Your task to perform on an android device: Go to ESPN.com Image 0: 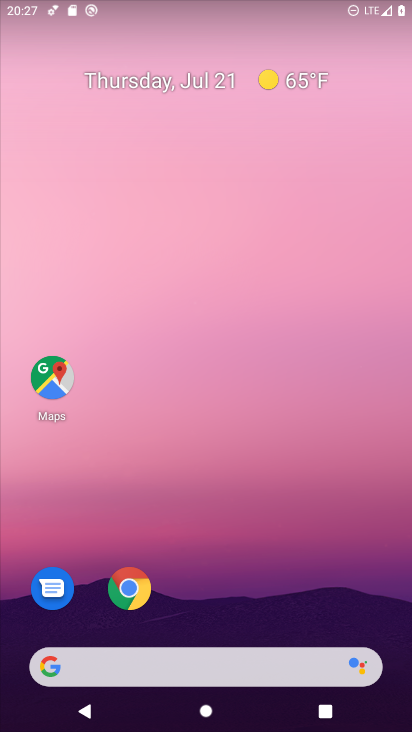
Step 0: click (149, 606)
Your task to perform on an android device: Go to ESPN.com Image 1: 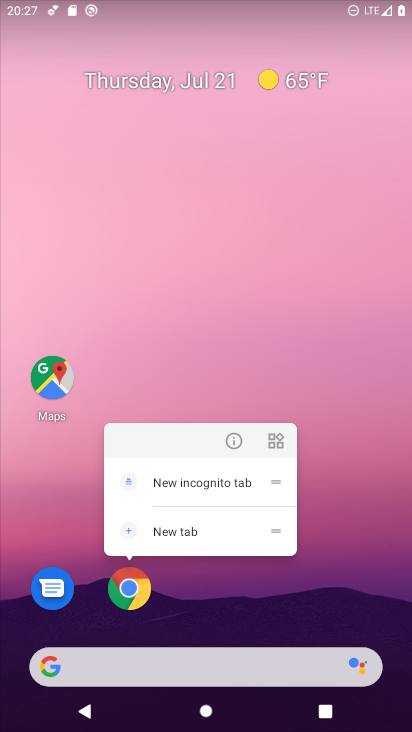
Step 1: click (302, 271)
Your task to perform on an android device: Go to ESPN.com Image 2: 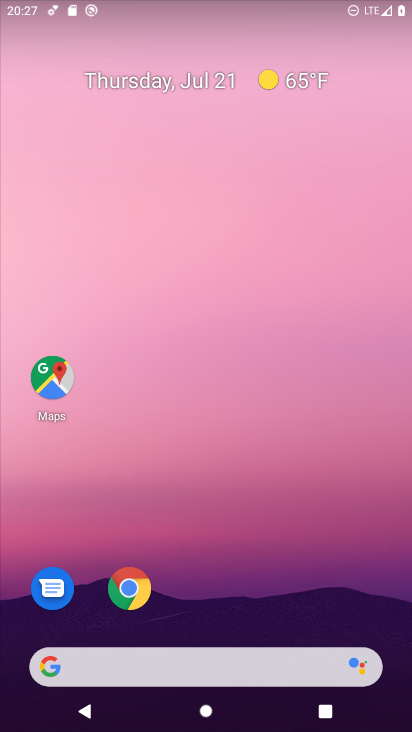
Step 2: click (146, 570)
Your task to perform on an android device: Go to ESPN.com Image 3: 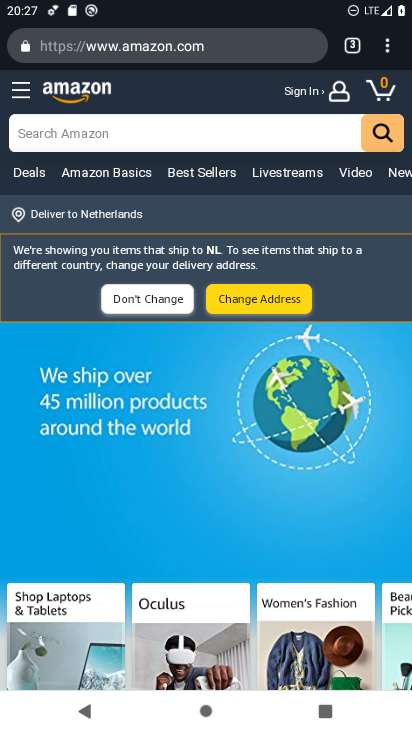
Step 3: click (358, 47)
Your task to perform on an android device: Go to ESPN.com Image 4: 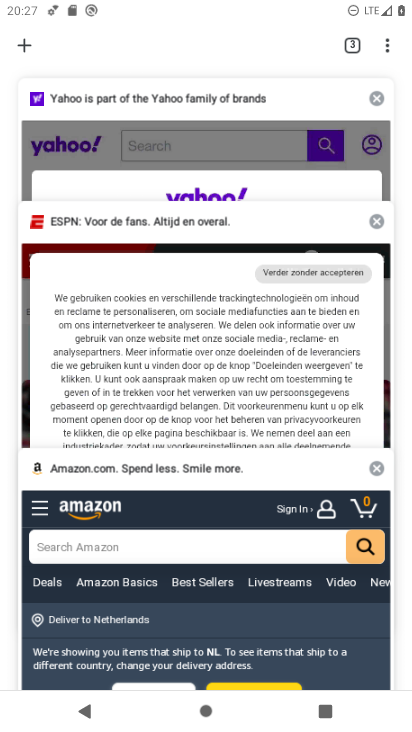
Step 4: click (24, 38)
Your task to perform on an android device: Go to ESPN.com Image 5: 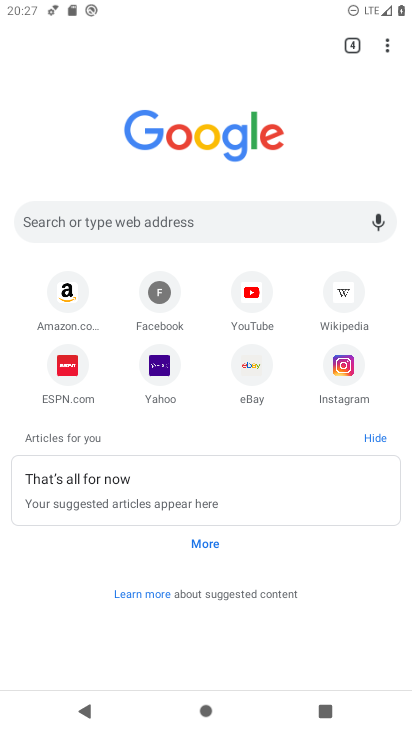
Step 5: click (58, 370)
Your task to perform on an android device: Go to ESPN.com Image 6: 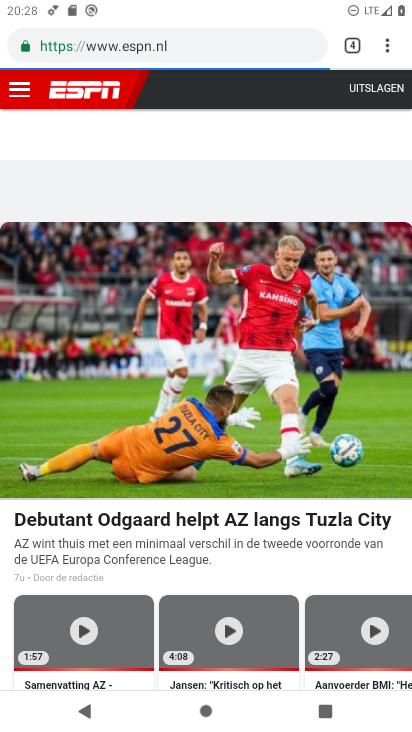
Step 6: task complete